Your task to perform on an android device: turn on wifi Image 0: 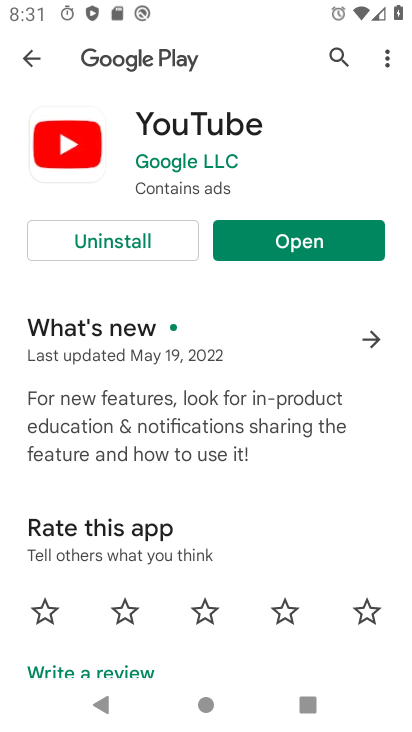
Step 0: press home button
Your task to perform on an android device: turn on wifi Image 1: 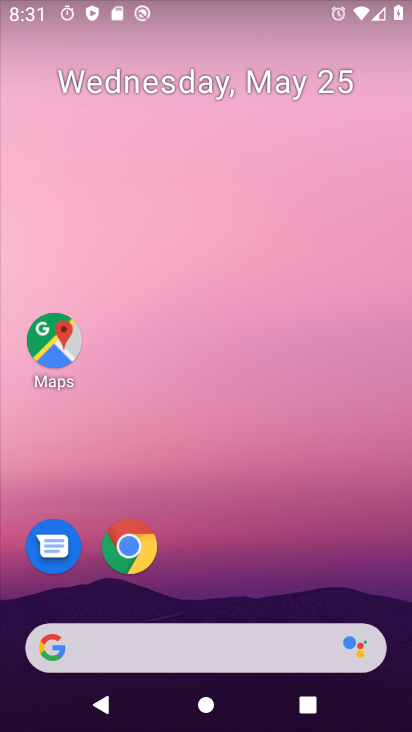
Step 1: drag from (231, 610) to (206, 75)
Your task to perform on an android device: turn on wifi Image 2: 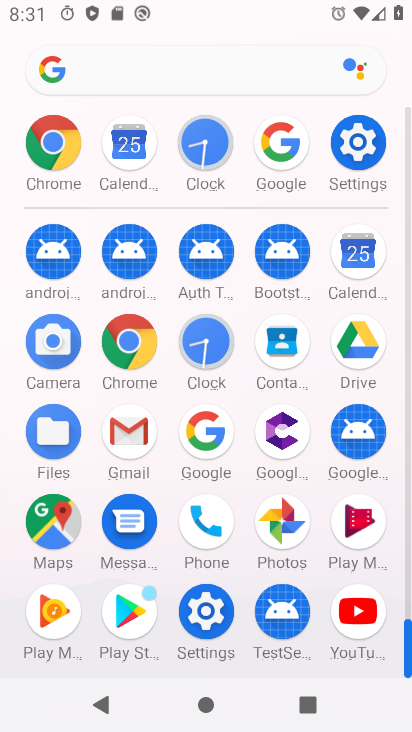
Step 2: click (358, 147)
Your task to perform on an android device: turn on wifi Image 3: 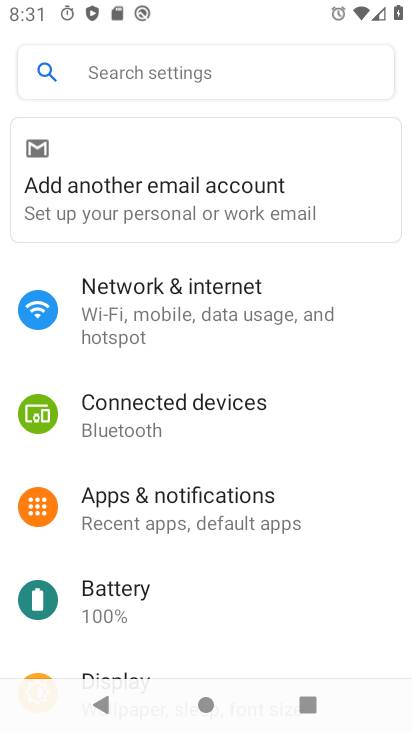
Step 3: click (164, 318)
Your task to perform on an android device: turn on wifi Image 4: 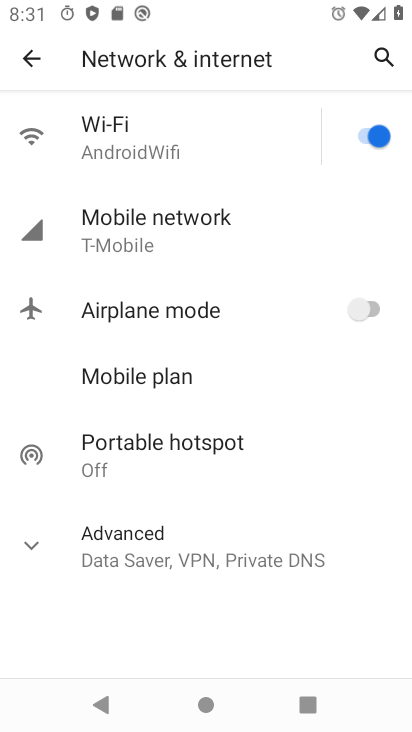
Step 4: task complete